Your task to perform on an android device: turn off location history Image 0: 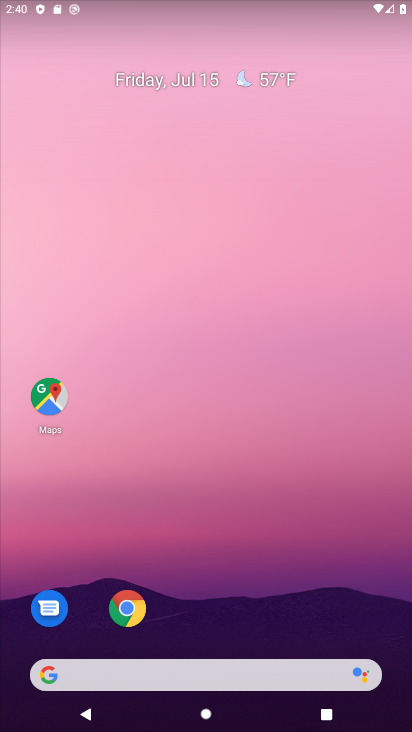
Step 0: drag from (188, 477) to (224, 6)
Your task to perform on an android device: turn off location history Image 1: 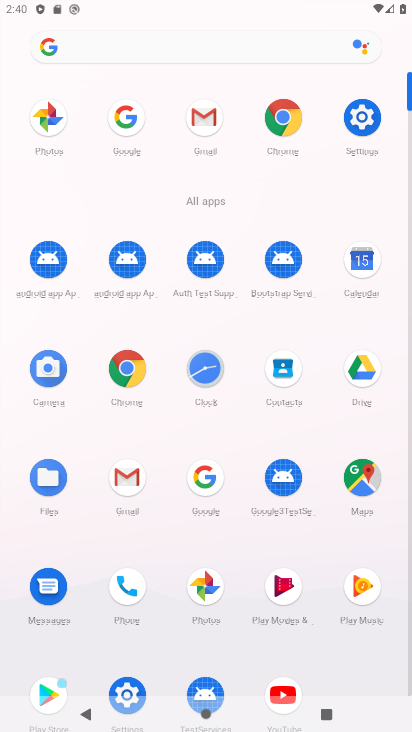
Step 1: click (364, 141)
Your task to perform on an android device: turn off location history Image 2: 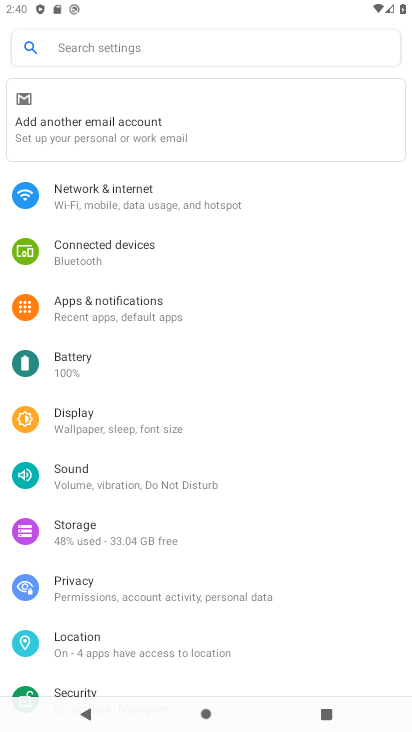
Step 2: click (94, 654)
Your task to perform on an android device: turn off location history Image 3: 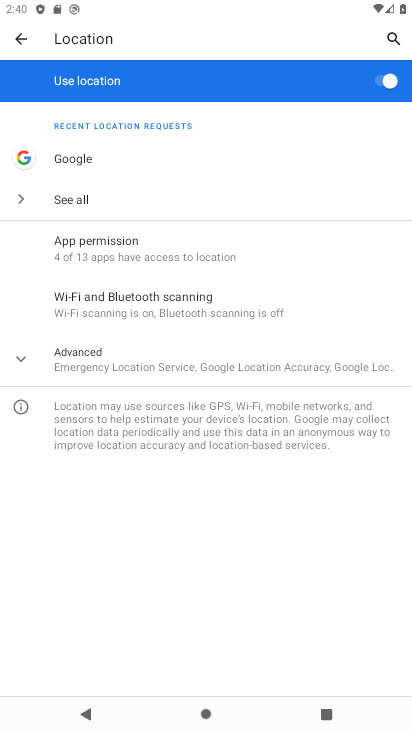
Step 3: click (200, 364)
Your task to perform on an android device: turn off location history Image 4: 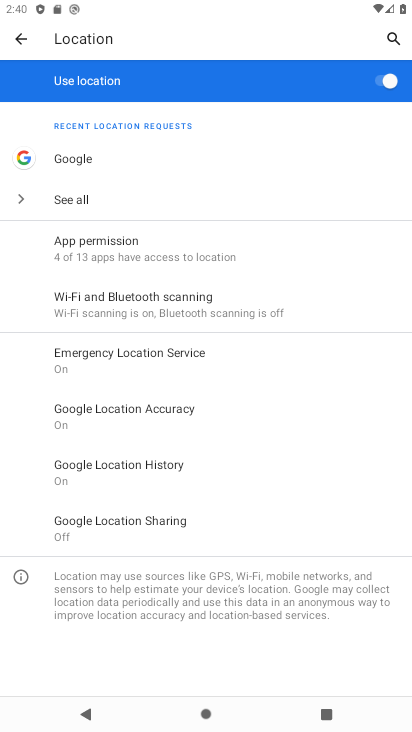
Step 4: click (129, 469)
Your task to perform on an android device: turn off location history Image 5: 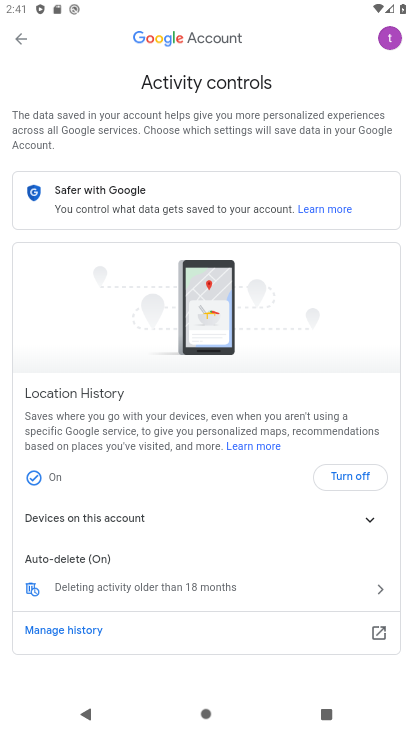
Step 5: click (341, 476)
Your task to perform on an android device: turn off location history Image 6: 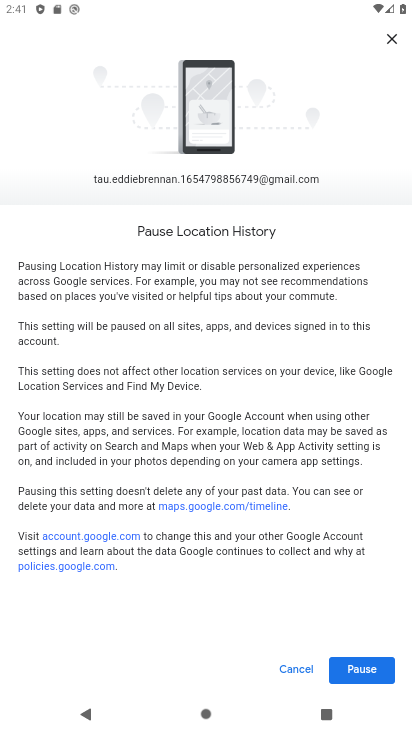
Step 6: click (354, 677)
Your task to perform on an android device: turn off location history Image 7: 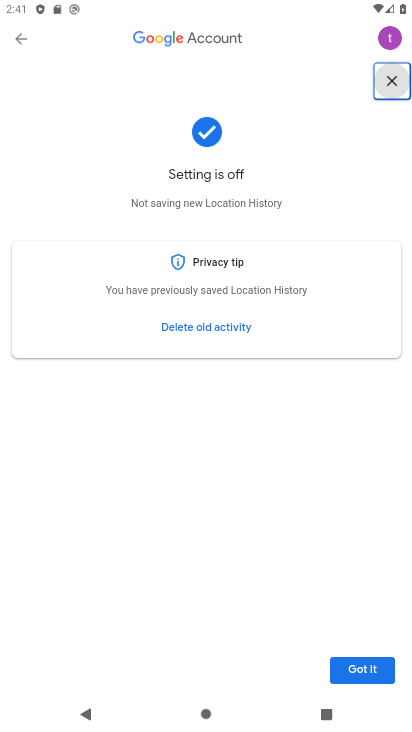
Step 7: click (354, 677)
Your task to perform on an android device: turn off location history Image 8: 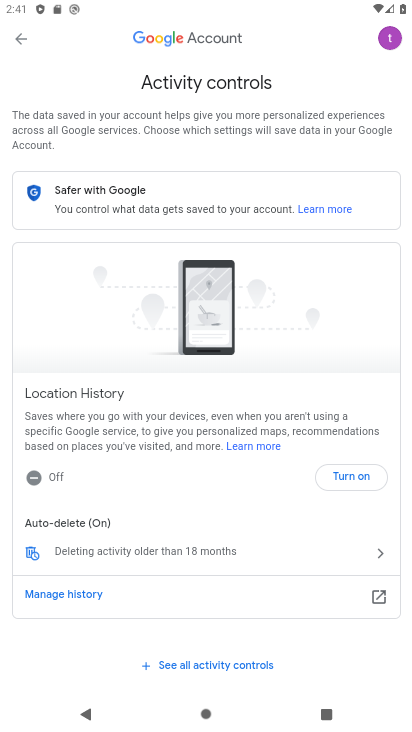
Step 8: task complete